Your task to perform on an android device: Check the weather Image 0: 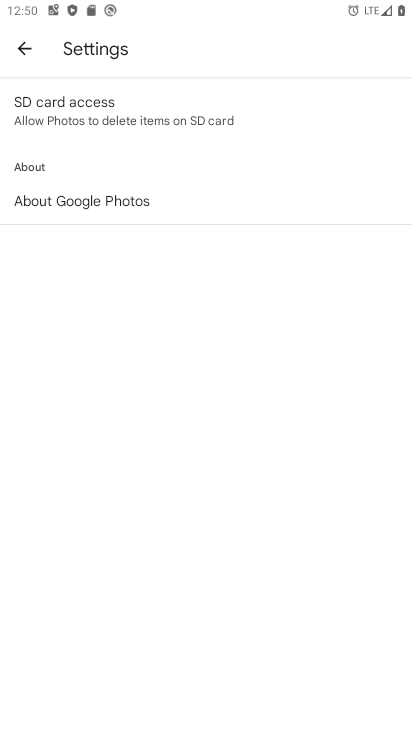
Step 0: press home button
Your task to perform on an android device: Check the weather Image 1: 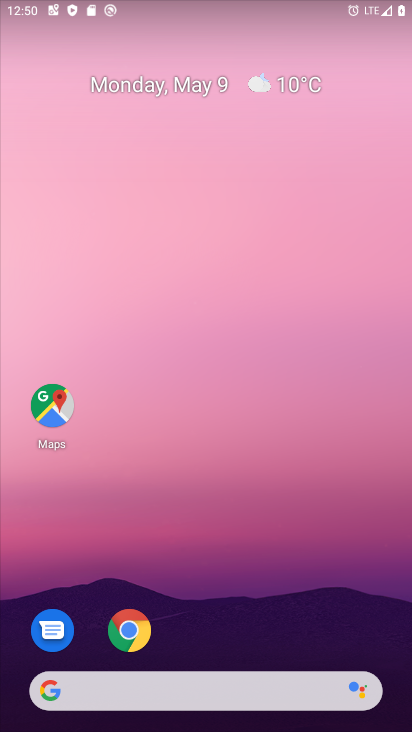
Step 1: click (229, 686)
Your task to perform on an android device: Check the weather Image 2: 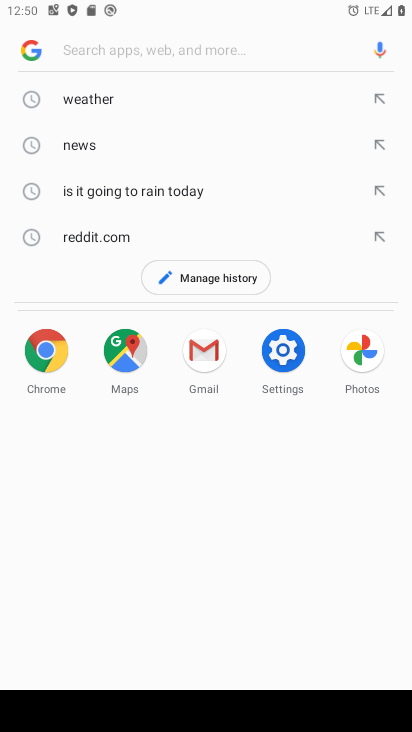
Step 2: click (115, 117)
Your task to perform on an android device: Check the weather Image 3: 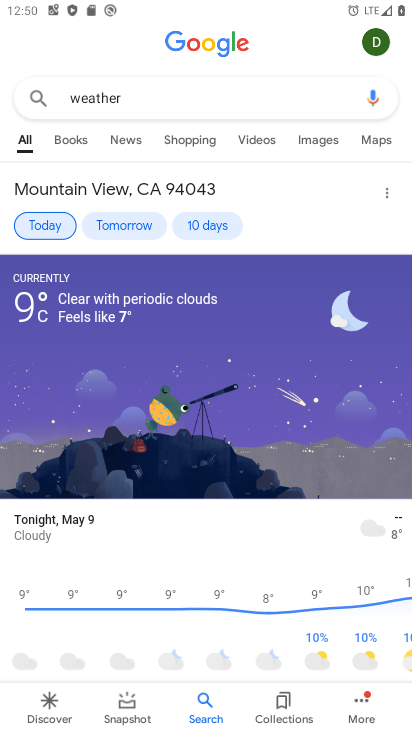
Step 3: task complete